Your task to perform on an android device: change alarm snooze length Image 0: 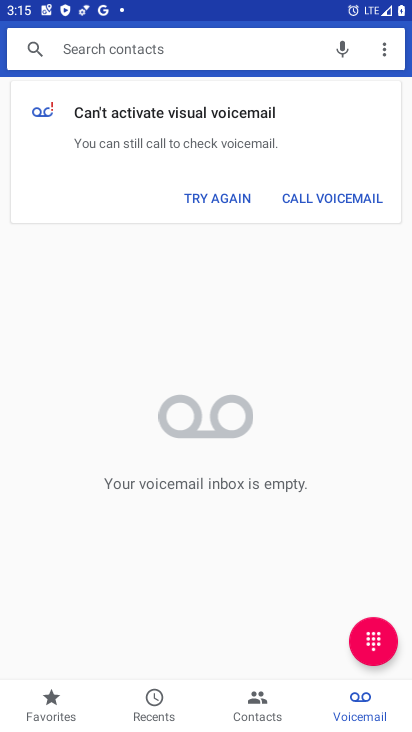
Step 0: press home button
Your task to perform on an android device: change alarm snooze length Image 1: 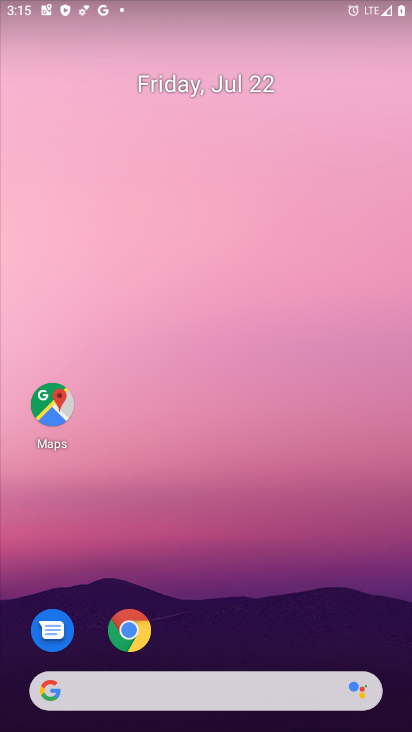
Step 1: drag from (235, 679) to (279, 160)
Your task to perform on an android device: change alarm snooze length Image 2: 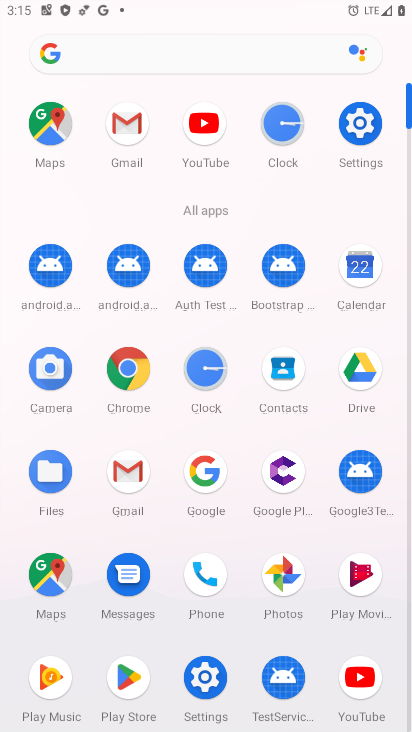
Step 2: click (193, 367)
Your task to perform on an android device: change alarm snooze length Image 3: 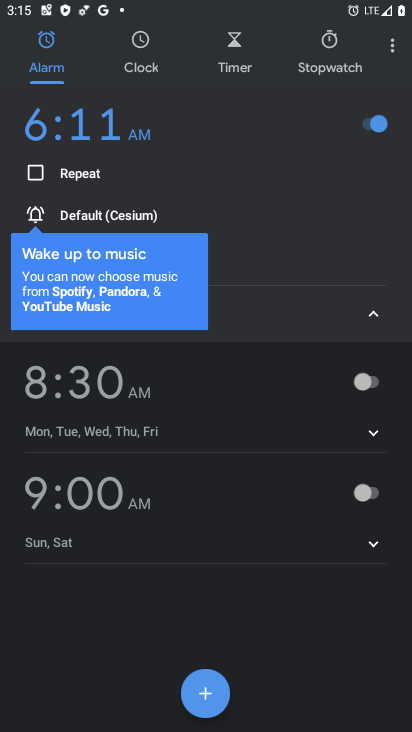
Step 3: click (387, 40)
Your task to perform on an android device: change alarm snooze length Image 4: 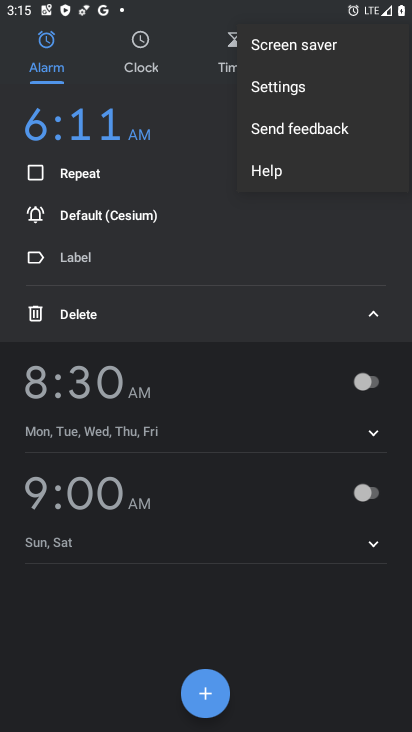
Step 4: click (281, 90)
Your task to perform on an android device: change alarm snooze length Image 5: 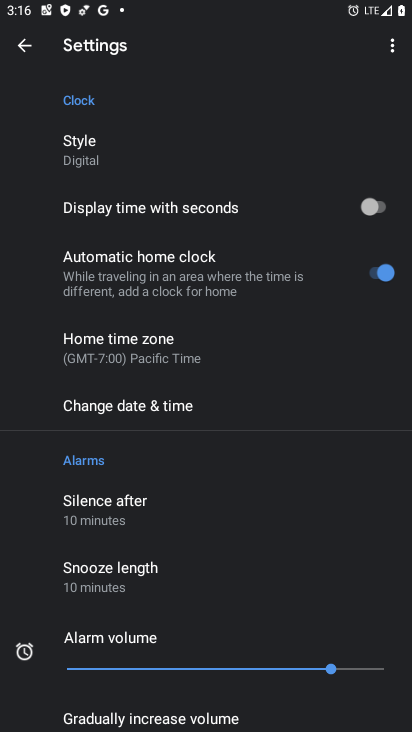
Step 5: click (133, 577)
Your task to perform on an android device: change alarm snooze length Image 6: 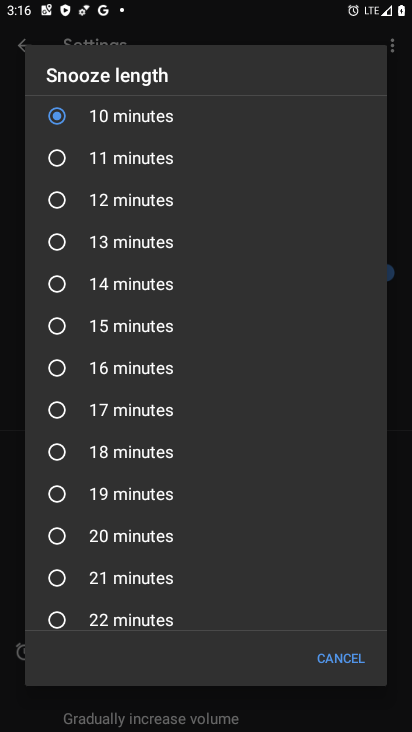
Step 6: click (120, 570)
Your task to perform on an android device: change alarm snooze length Image 7: 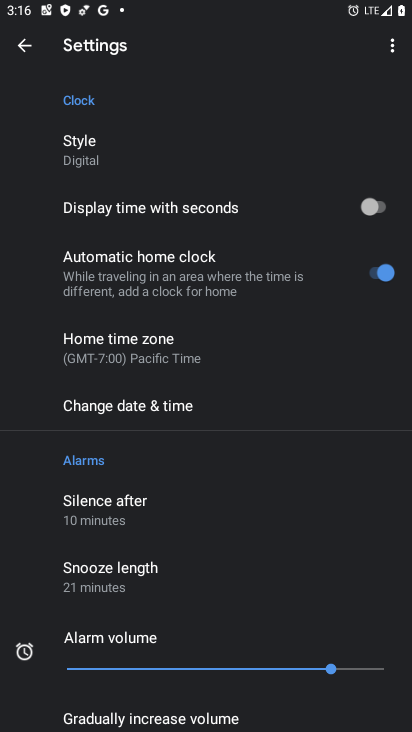
Step 7: task complete